Your task to perform on an android device: Open Reddit.com Image 0: 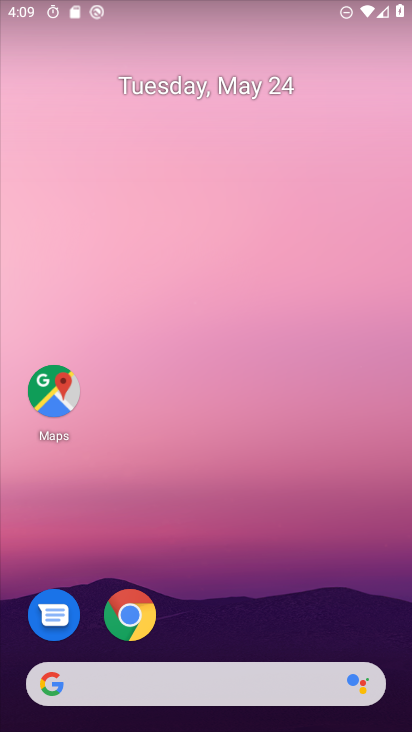
Step 0: click (146, 621)
Your task to perform on an android device: Open Reddit.com Image 1: 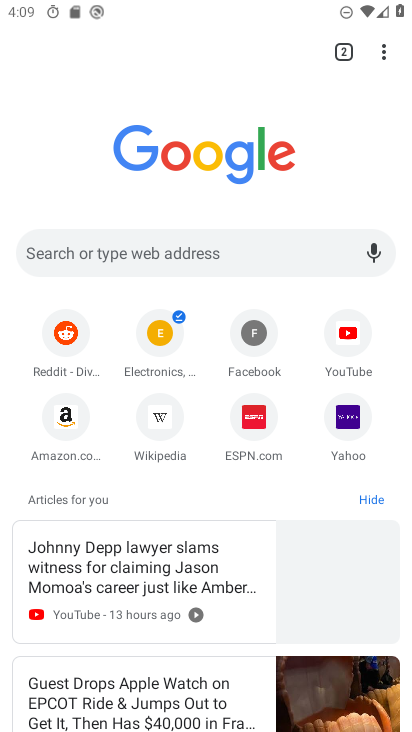
Step 1: click (233, 252)
Your task to perform on an android device: Open Reddit.com Image 2: 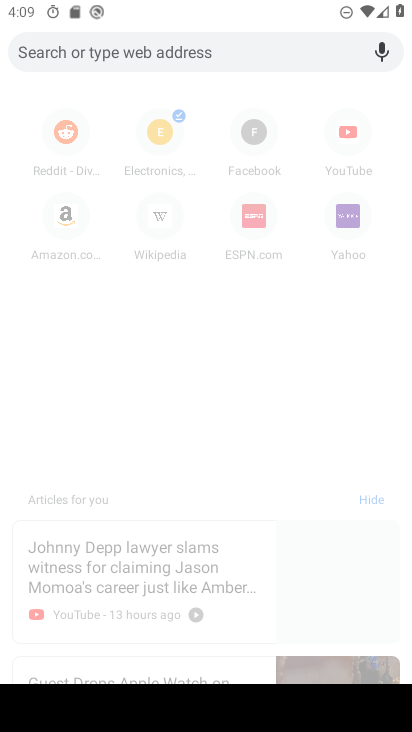
Step 2: type "reddit"
Your task to perform on an android device: Open Reddit.com Image 3: 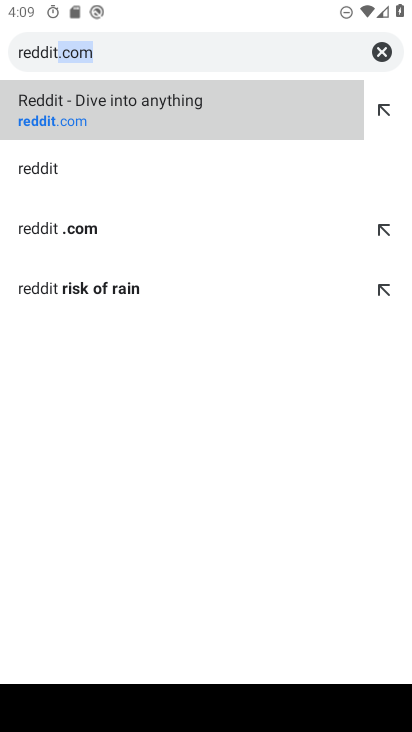
Step 3: click (221, 114)
Your task to perform on an android device: Open Reddit.com Image 4: 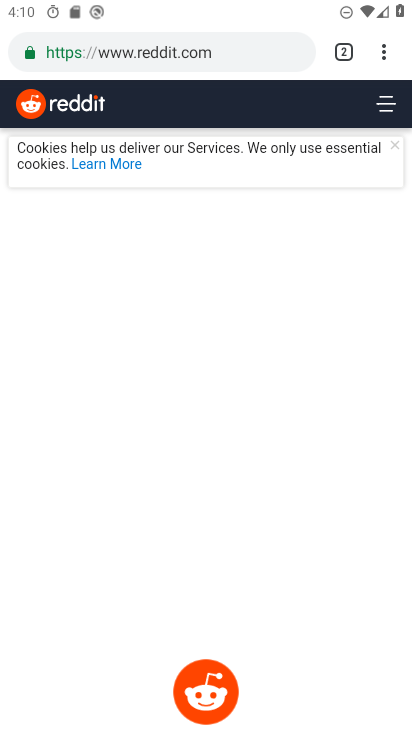
Step 4: task complete